Your task to perform on an android device: Go to calendar. Show me events next week Image 0: 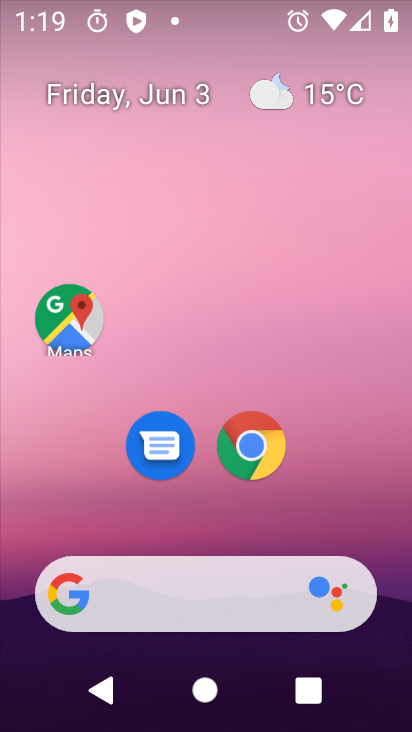
Step 0: click (100, 87)
Your task to perform on an android device: Go to calendar. Show me events next week Image 1: 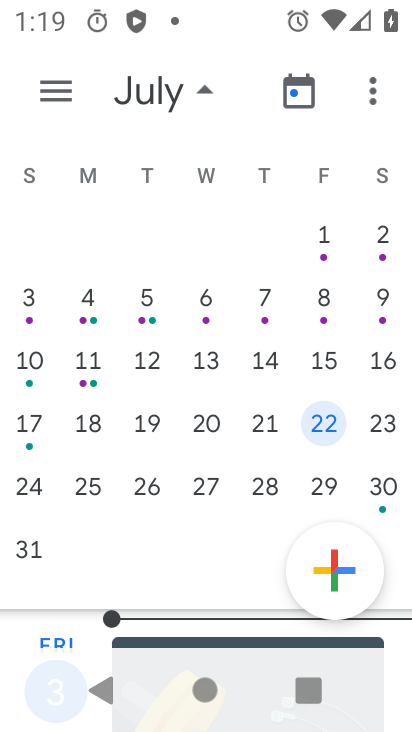
Step 1: click (100, 87)
Your task to perform on an android device: Go to calendar. Show me events next week Image 2: 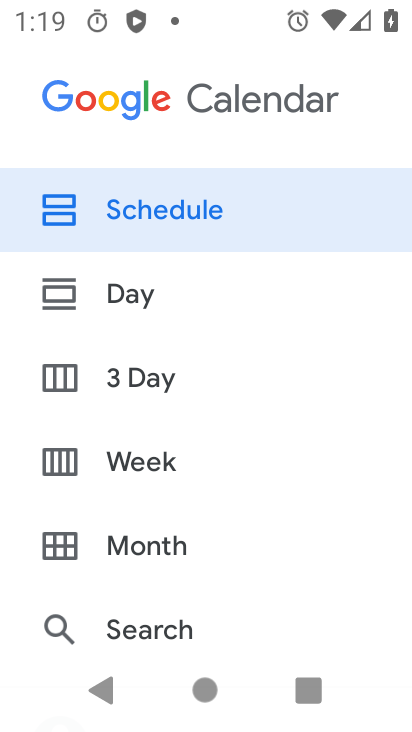
Step 2: press back button
Your task to perform on an android device: Go to calendar. Show me events next week Image 3: 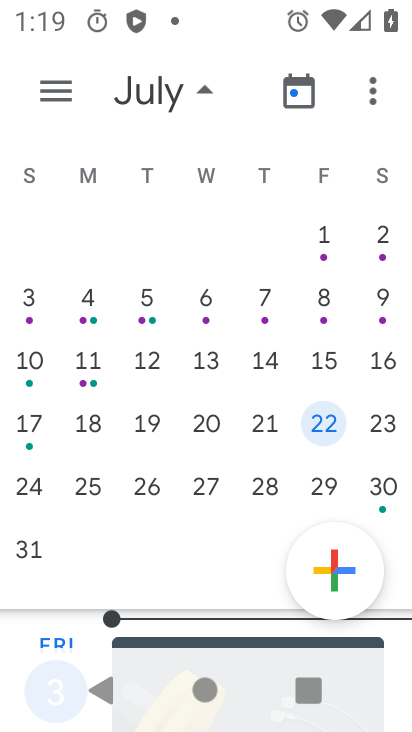
Step 3: click (131, 111)
Your task to perform on an android device: Go to calendar. Show me events next week Image 4: 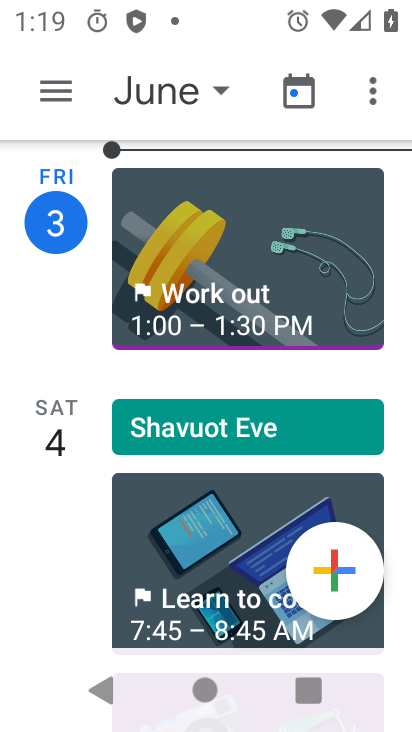
Step 4: click (135, 111)
Your task to perform on an android device: Go to calendar. Show me events next week Image 5: 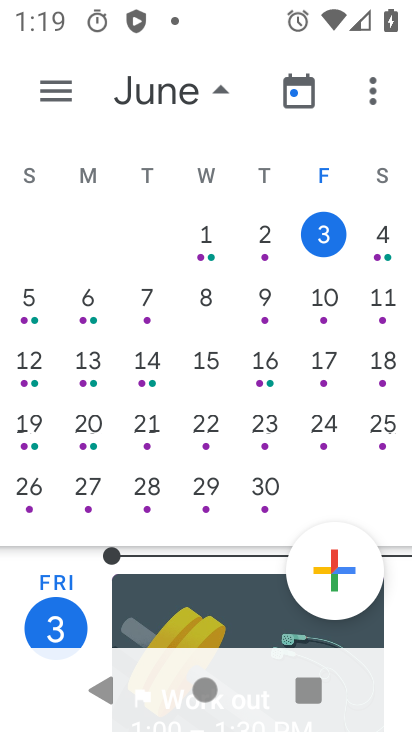
Step 5: click (332, 313)
Your task to perform on an android device: Go to calendar. Show me events next week Image 6: 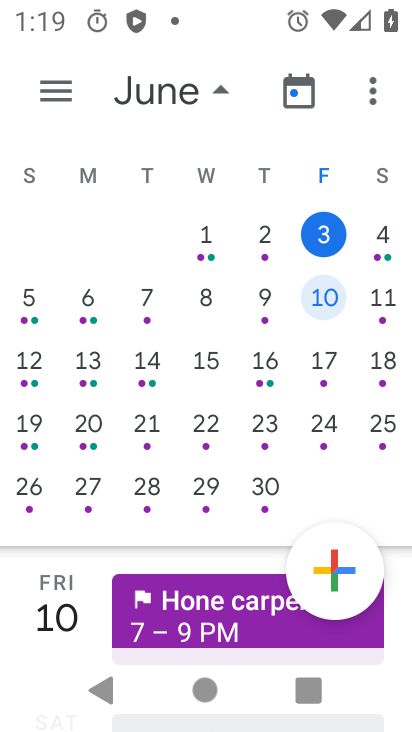
Step 6: task complete